Your task to perform on an android device: toggle wifi Image 0: 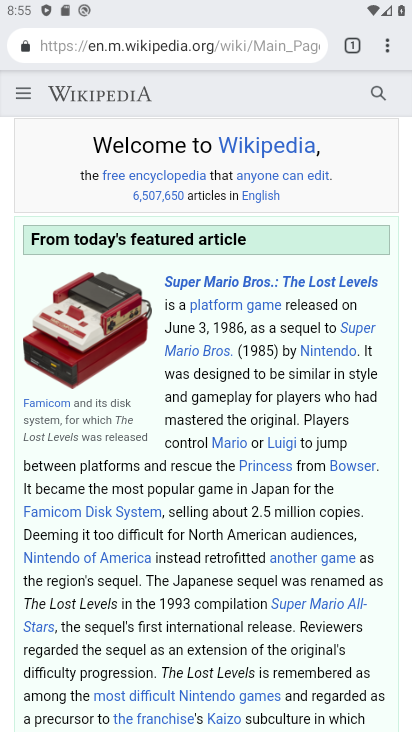
Step 0: drag from (217, 618) to (251, 164)
Your task to perform on an android device: toggle wifi Image 1: 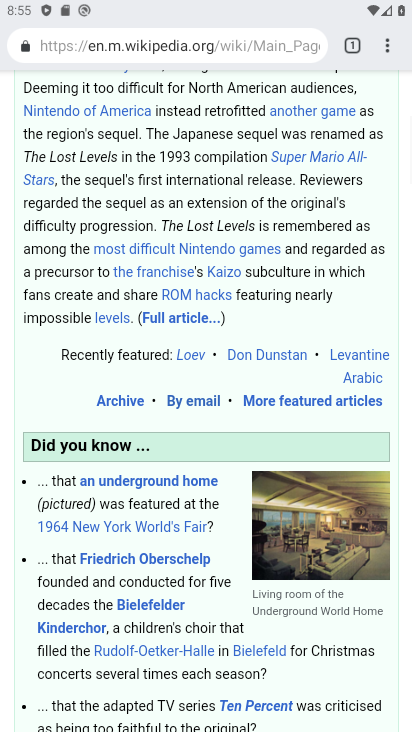
Step 1: press home button
Your task to perform on an android device: toggle wifi Image 2: 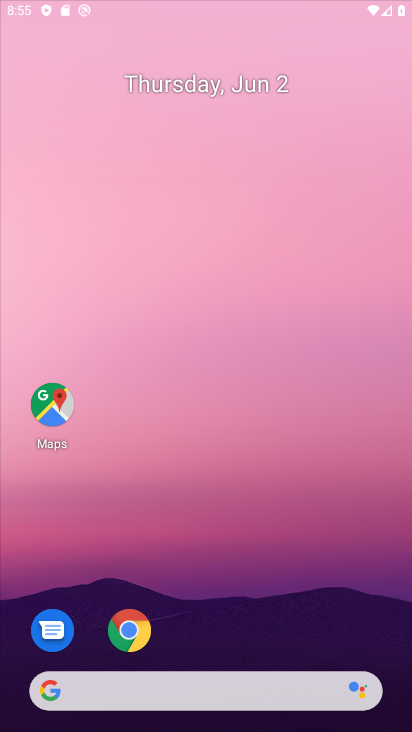
Step 2: drag from (212, 544) to (195, 8)
Your task to perform on an android device: toggle wifi Image 3: 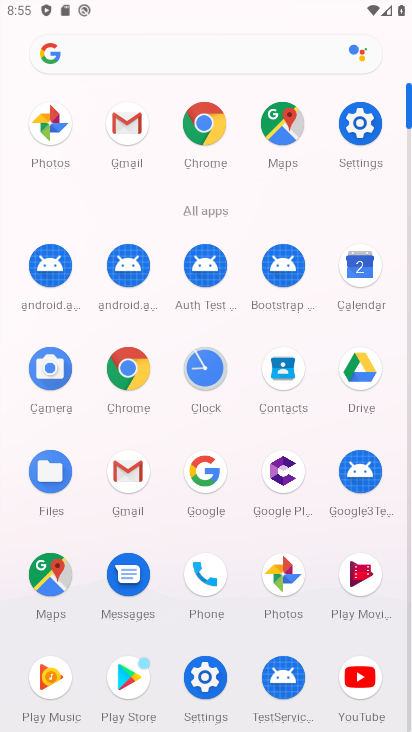
Step 3: click (360, 117)
Your task to perform on an android device: toggle wifi Image 4: 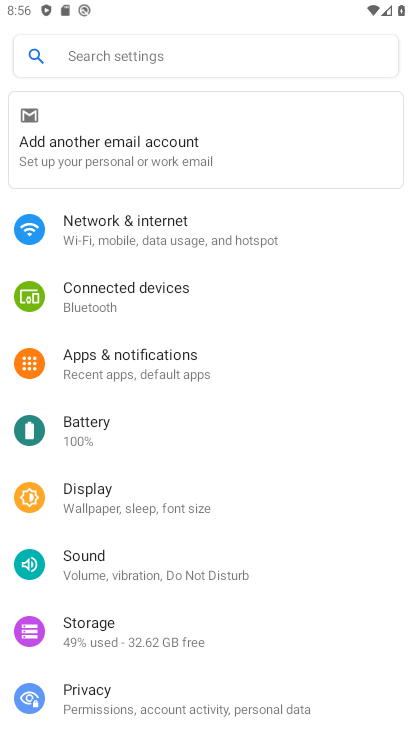
Step 4: click (128, 233)
Your task to perform on an android device: toggle wifi Image 5: 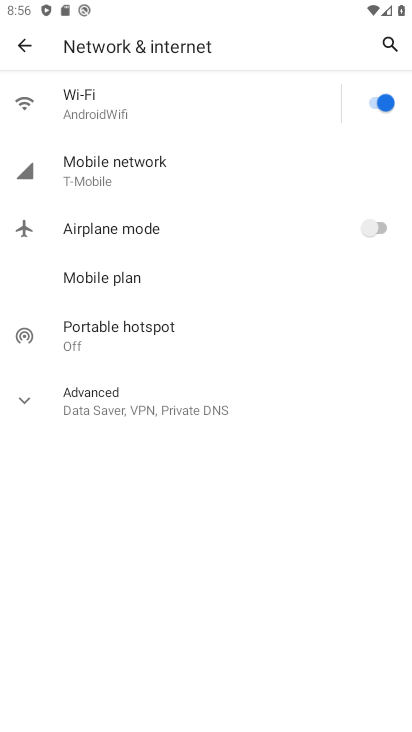
Step 5: click (383, 101)
Your task to perform on an android device: toggle wifi Image 6: 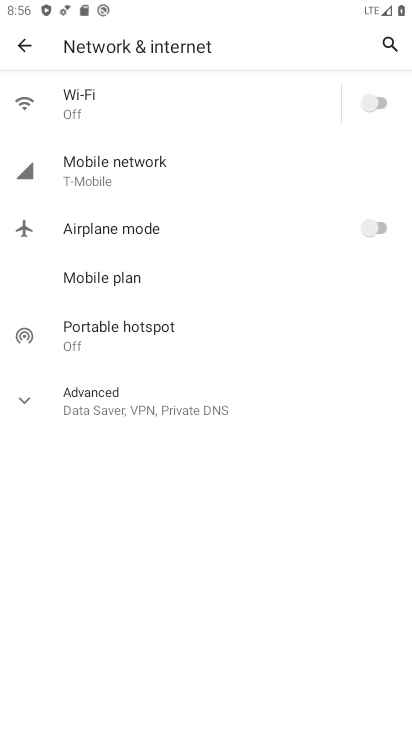
Step 6: task complete